Your task to perform on an android device: Open eBay Image 0: 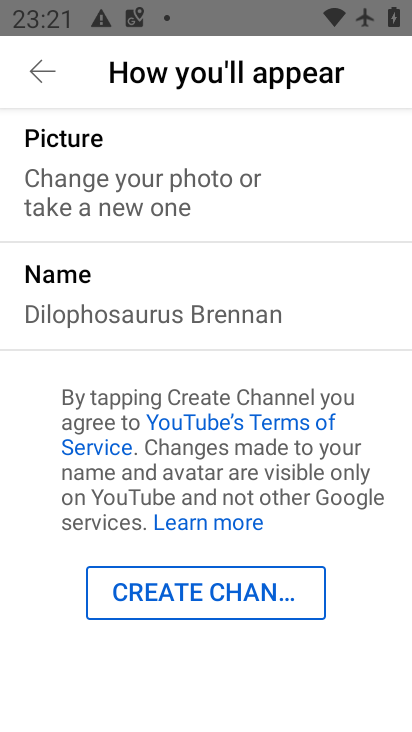
Step 0: press home button
Your task to perform on an android device: Open eBay Image 1: 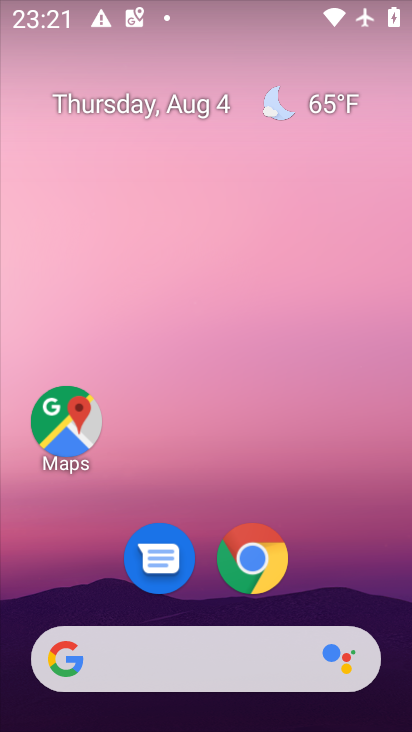
Step 1: click (246, 560)
Your task to perform on an android device: Open eBay Image 2: 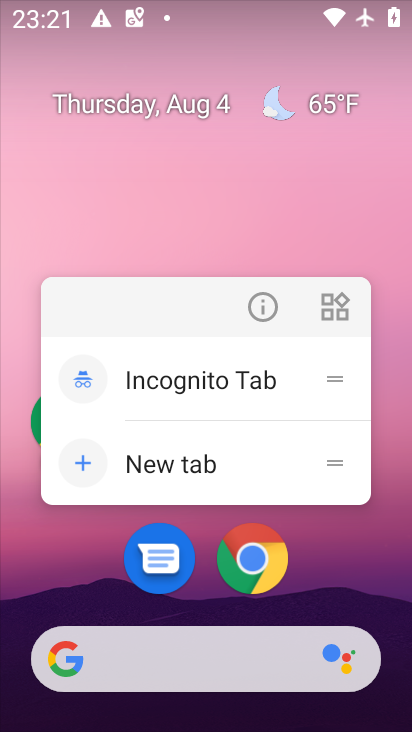
Step 2: click (262, 553)
Your task to perform on an android device: Open eBay Image 3: 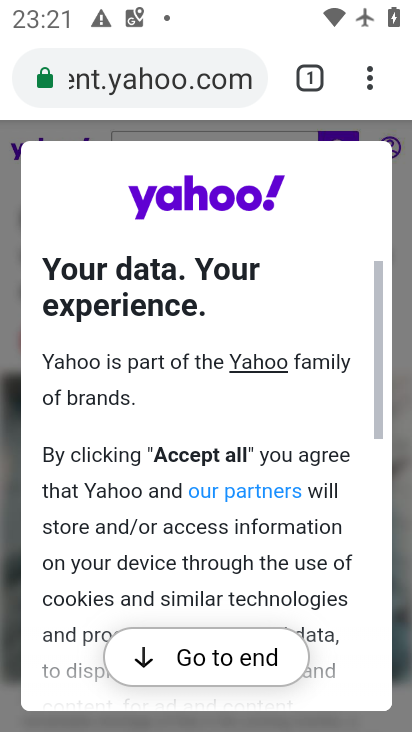
Step 3: click (206, 94)
Your task to perform on an android device: Open eBay Image 4: 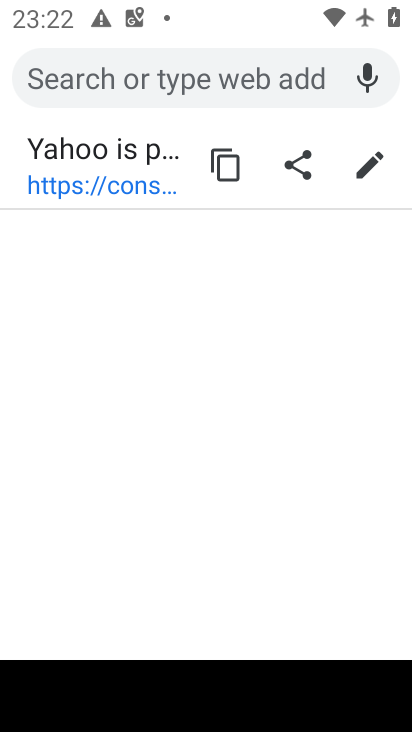
Step 4: type "eBay"
Your task to perform on an android device: Open eBay Image 5: 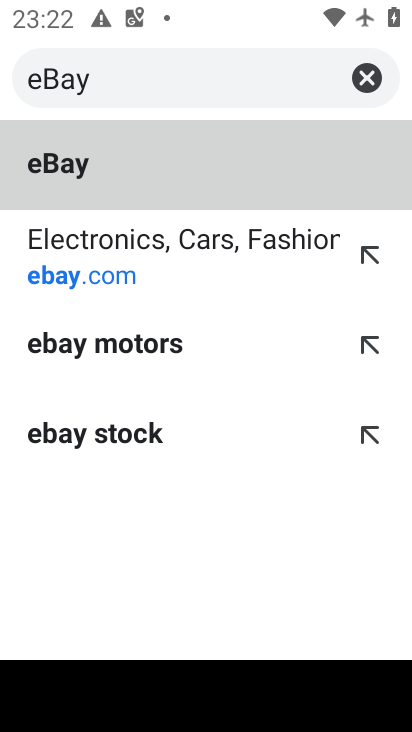
Step 5: click (64, 252)
Your task to perform on an android device: Open eBay Image 6: 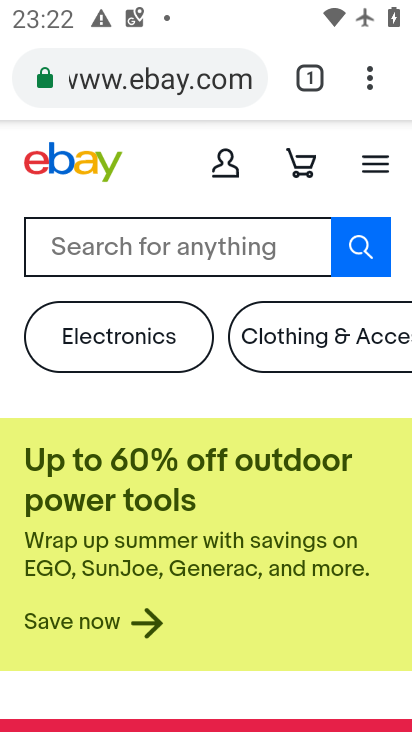
Step 6: task complete